Your task to perform on an android device: Open Wikipedia Image 0: 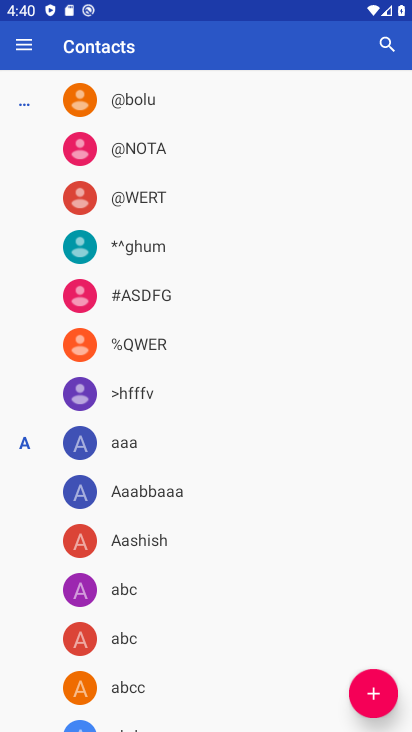
Step 0: press home button
Your task to perform on an android device: Open Wikipedia Image 1: 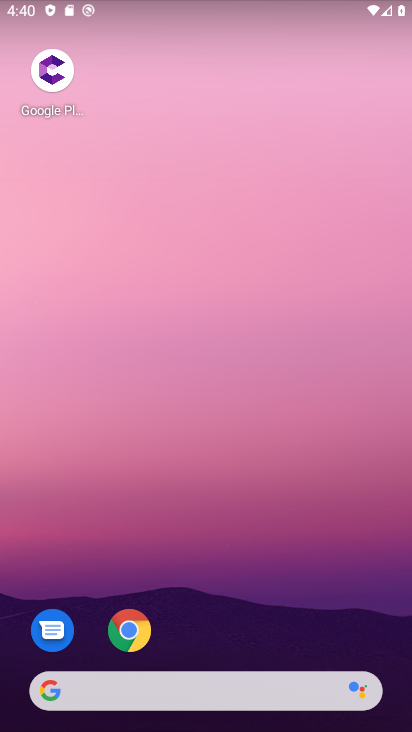
Step 1: click (126, 634)
Your task to perform on an android device: Open Wikipedia Image 2: 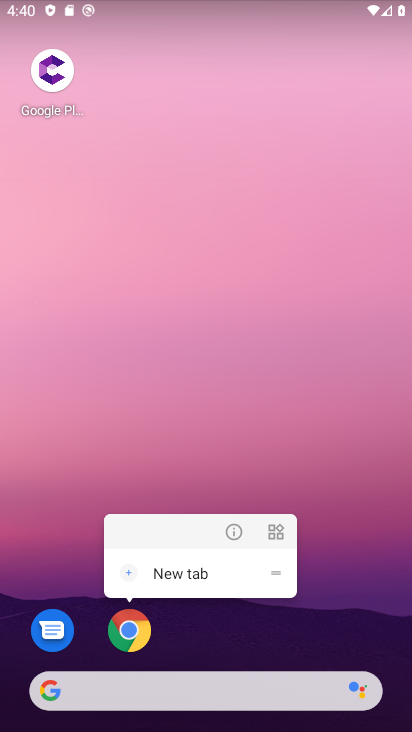
Step 2: click (129, 635)
Your task to perform on an android device: Open Wikipedia Image 3: 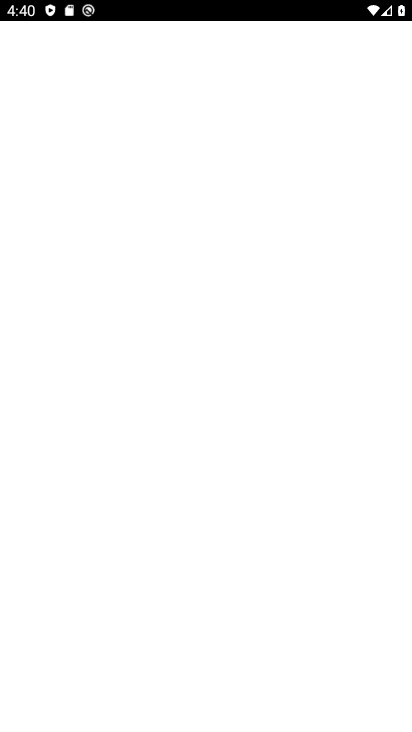
Step 3: click (127, 633)
Your task to perform on an android device: Open Wikipedia Image 4: 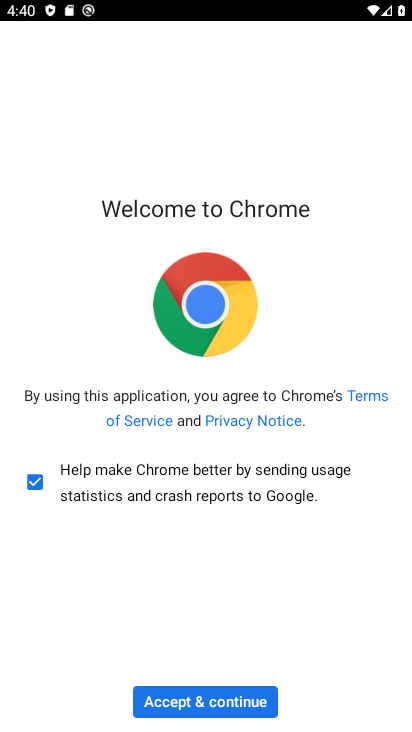
Step 4: click (211, 687)
Your task to perform on an android device: Open Wikipedia Image 5: 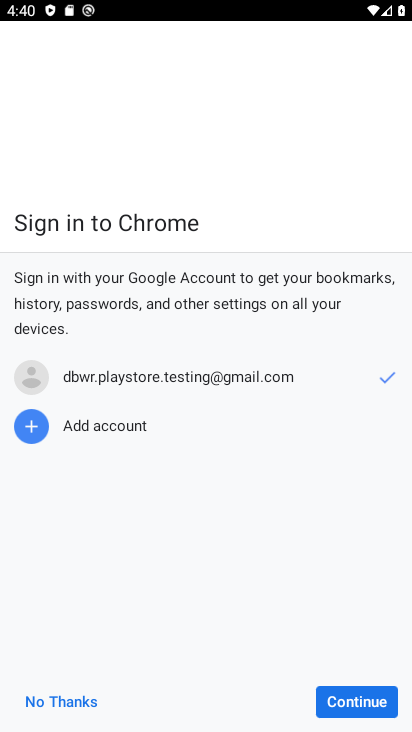
Step 5: click (377, 699)
Your task to perform on an android device: Open Wikipedia Image 6: 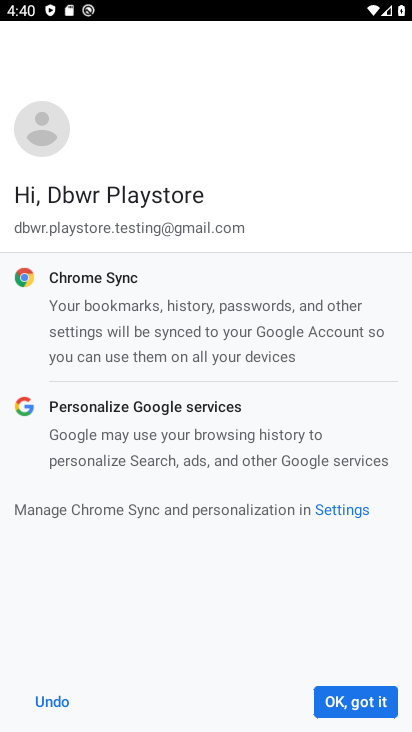
Step 6: click (377, 699)
Your task to perform on an android device: Open Wikipedia Image 7: 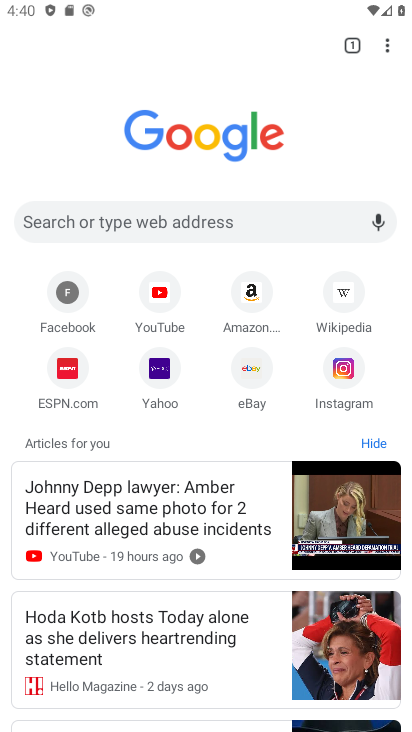
Step 7: click (353, 282)
Your task to perform on an android device: Open Wikipedia Image 8: 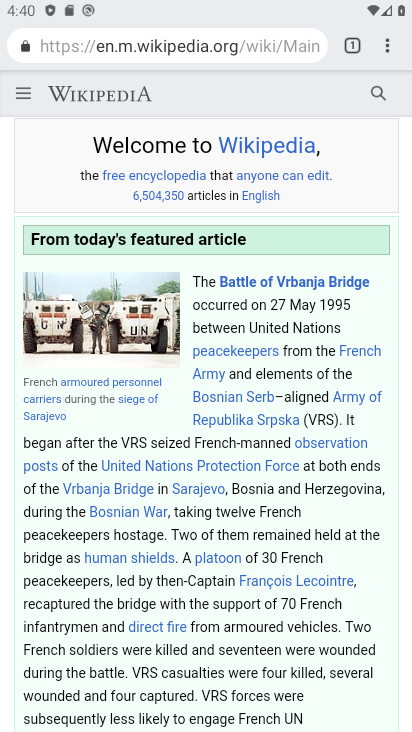
Step 8: task complete